Your task to perform on an android device: Check the weather Image 0: 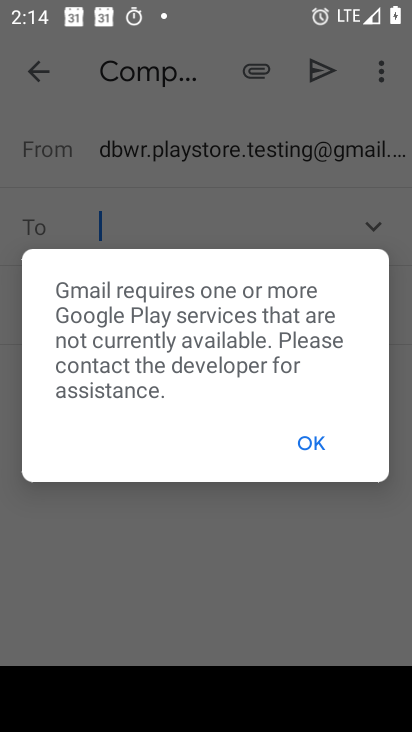
Step 0: press home button
Your task to perform on an android device: Check the weather Image 1: 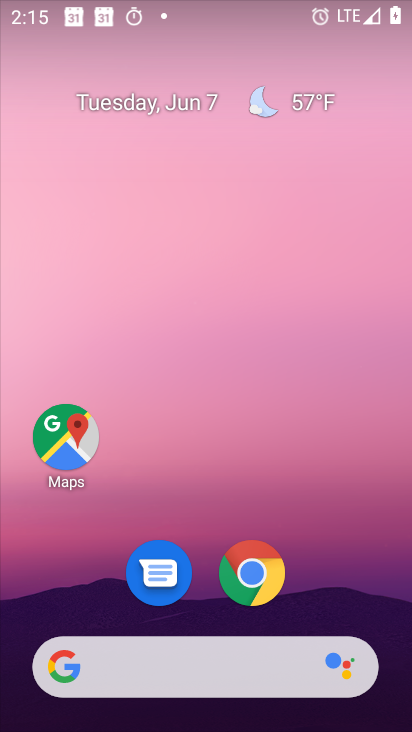
Step 1: drag from (293, 596) to (302, 60)
Your task to perform on an android device: Check the weather Image 2: 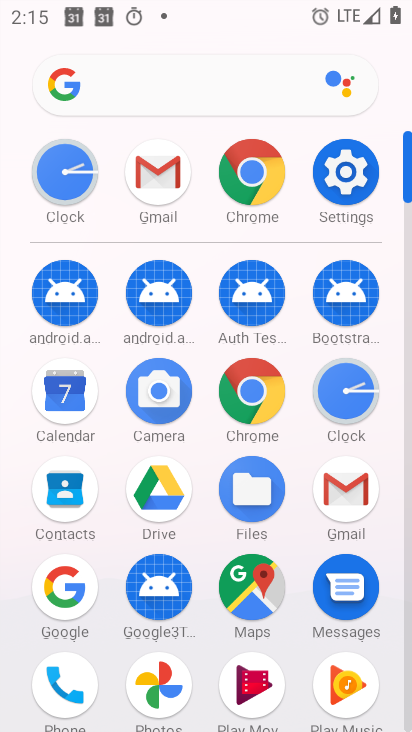
Step 2: click (249, 396)
Your task to perform on an android device: Check the weather Image 3: 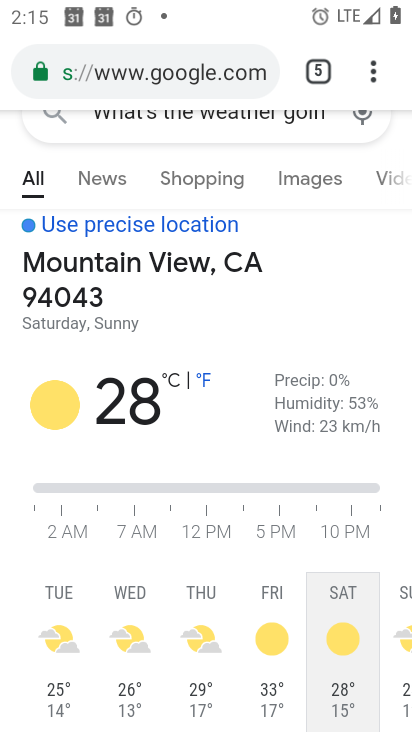
Step 3: click (134, 76)
Your task to perform on an android device: Check the weather Image 4: 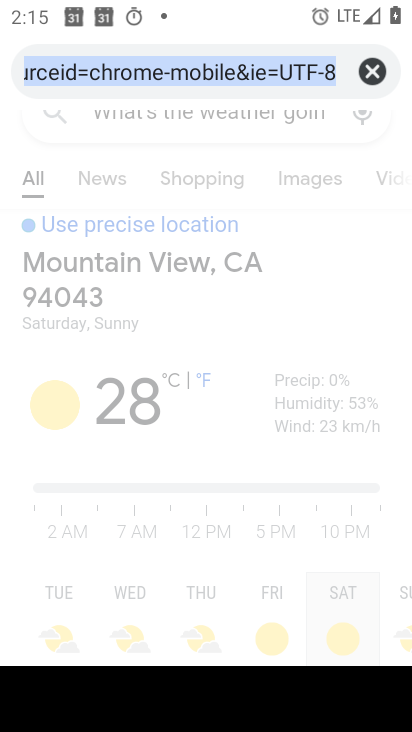
Step 4: click (371, 67)
Your task to perform on an android device: Check the weather Image 5: 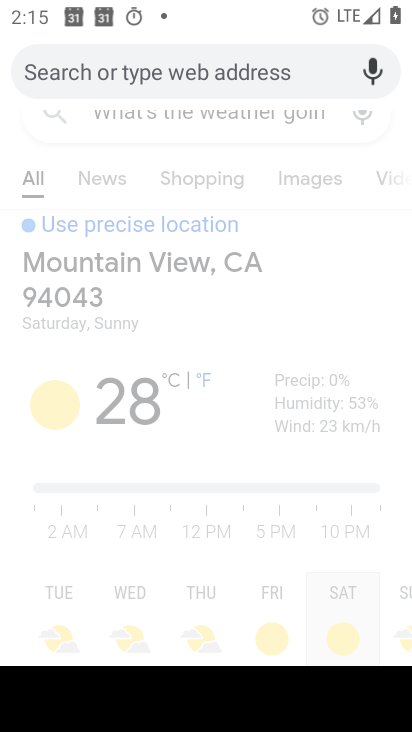
Step 5: type "Check the weather"
Your task to perform on an android device: Check the weather Image 6: 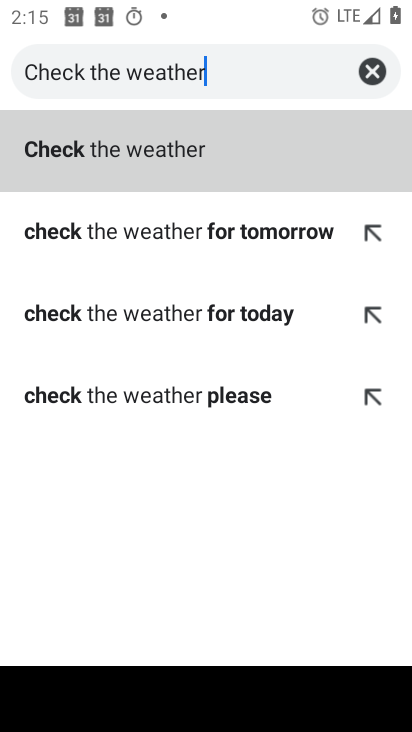
Step 6: click (100, 159)
Your task to perform on an android device: Check the weather Image 7: 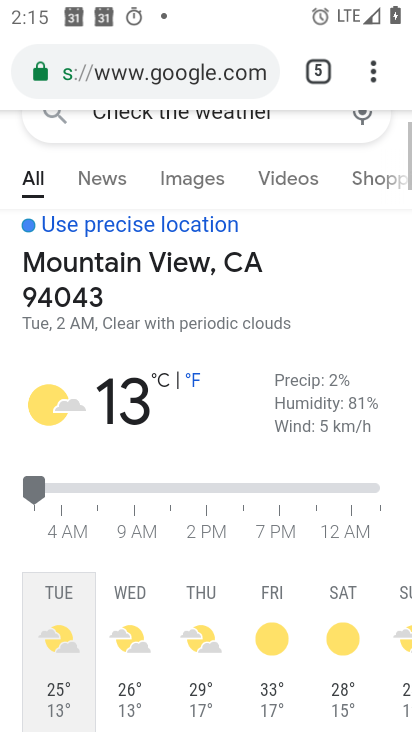
Step 7: task complete